Your task to perform on an android device: What's on my calendar tomorrow? Image 0: 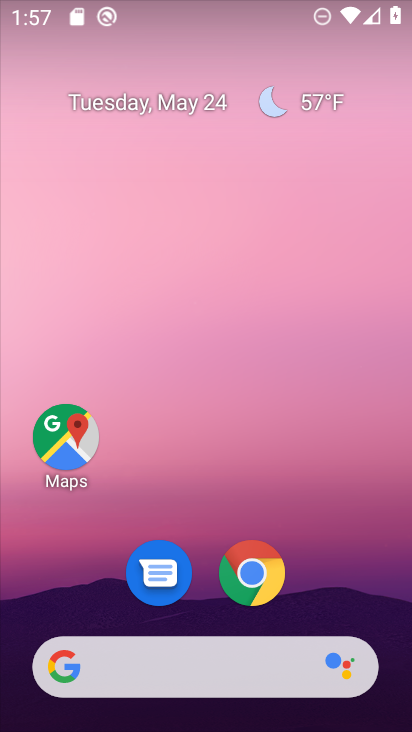
Step 0: drag from (317, 562) to (322, 102)
Your task to perform on an android device: What's on my calendar tomorrow? Image 1: 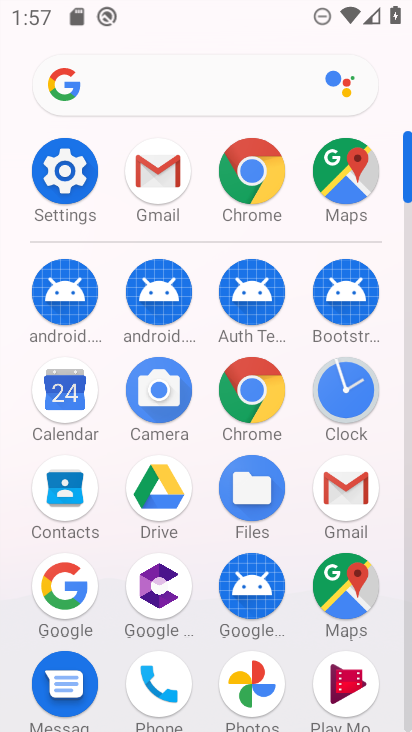
Step 1: click (43, 408)
Your task to perform on an android device: What's on my calendar tomorrow? Image 2: 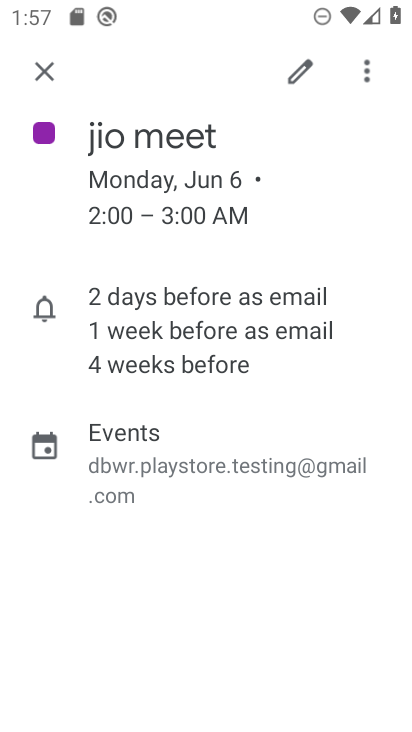
Step 2: click (48, 74)
Your task to perform on an android device: What's on my calendar tomorrow? Image 3: 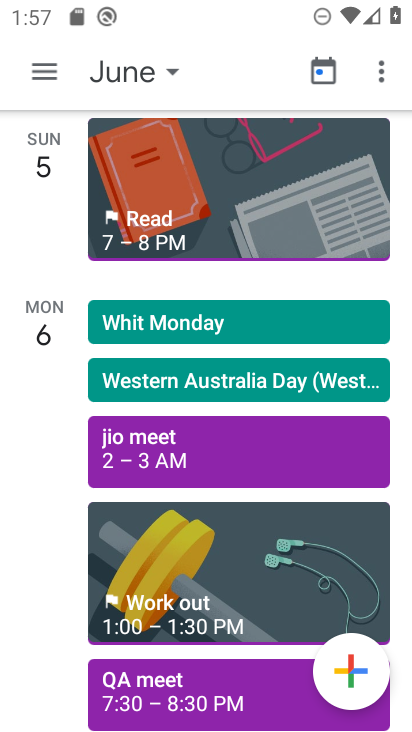
Step 3: click (105, 76)
Your task to perform on an android device: What's on my calendar tomorrow? Image 4: 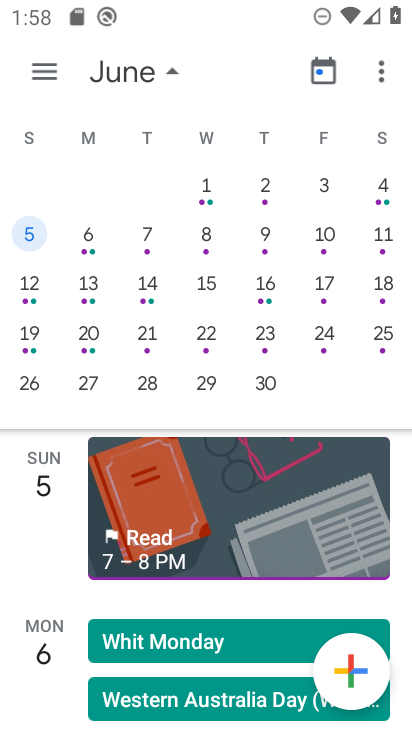
Step 4: drag from (102, 257) to (376, 271)
Your task to perform on an android device: What's on my calendar tomorrow? Image 5: 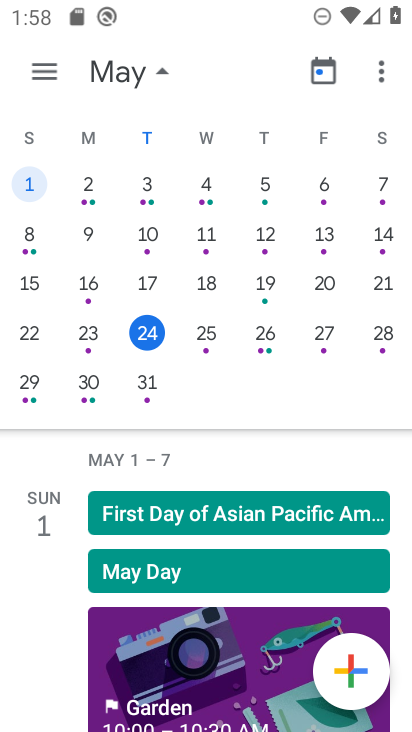
Step 5: click (215, 331)
Your task to perform on an android device: What's on my calendar tomorrow? Image 6: 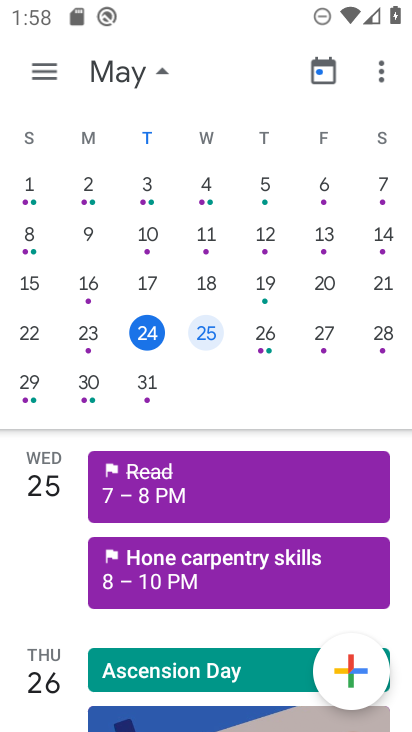
Step 6: task complete